Your task to perform on an android device: Open Youtube and go to the subscriptions tab Image 0: 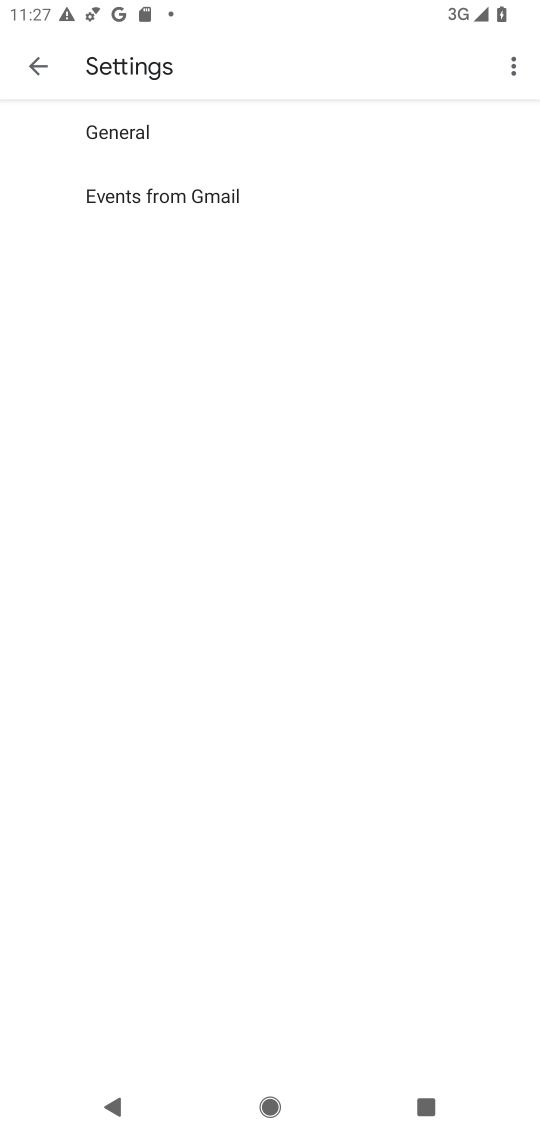
Step 0: press home button
Your task to perform on an android device: Open Youtube and go to the subscriptions tab Image 1: 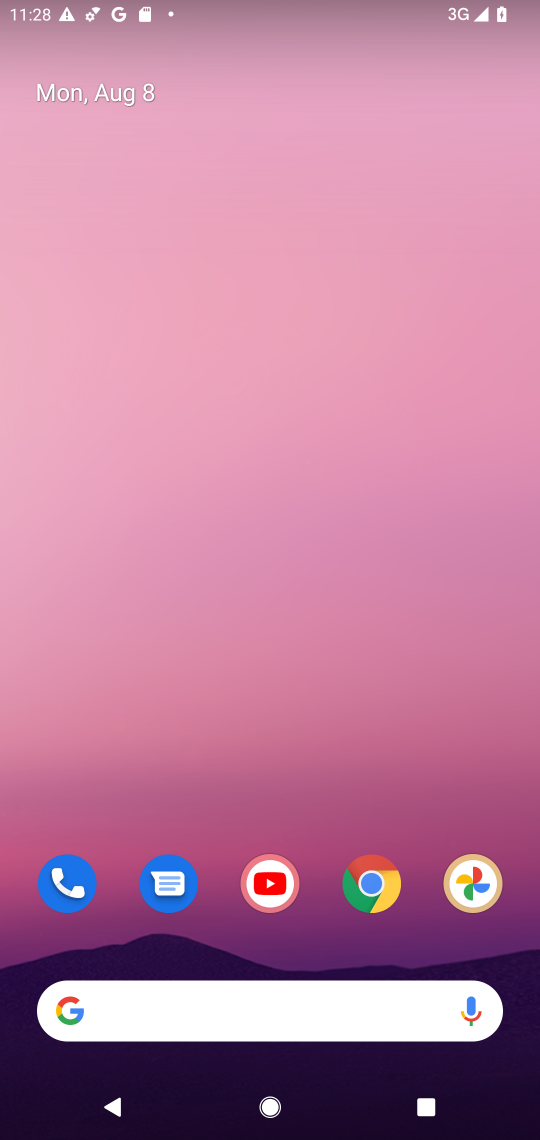
Step 1: drag from (323, 941) to (312, 24)
Your task to perform on an android device: Open Youtube and go to the subscriptions tab Image 2: 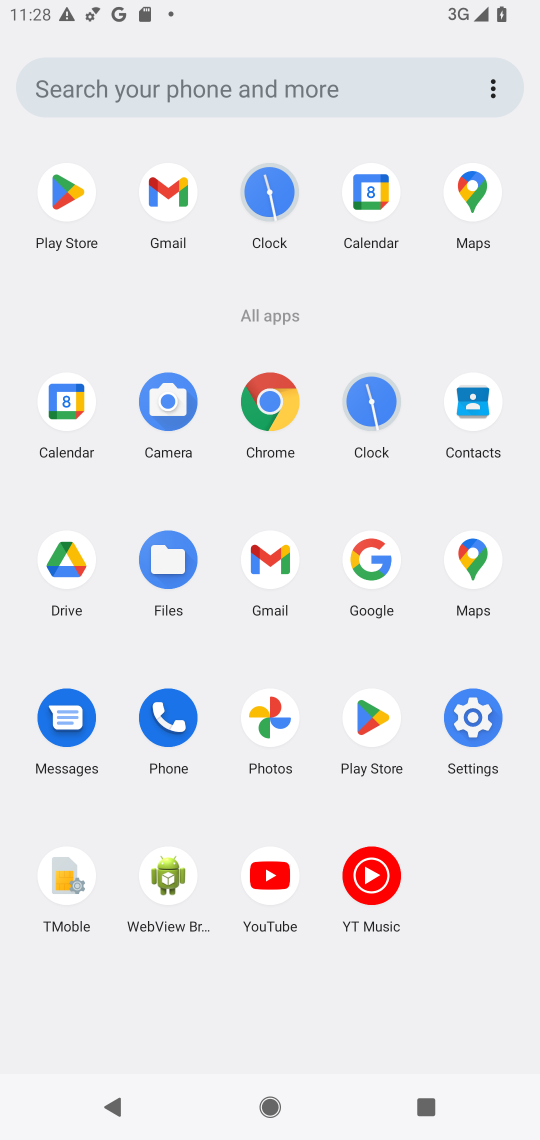
Step 2: click (263, 864)
Your task to perform on an android device: Open Youtube and go to the subscriptions tab Image 3: 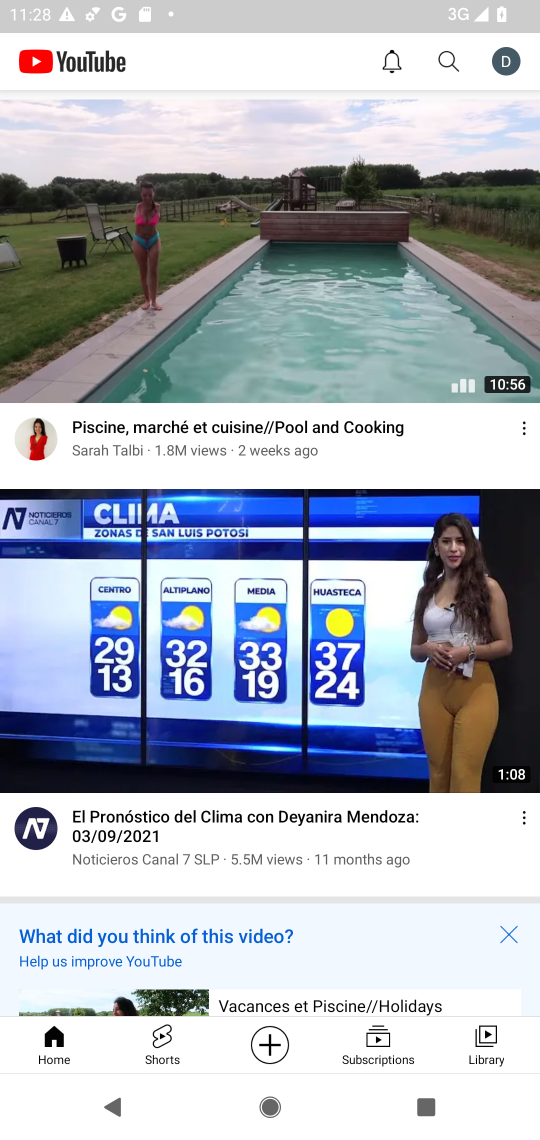
Step 3: click (377, 1027)
Your task to perform on an android device: Open Youtube and go to the subscriptions tab Image 4: 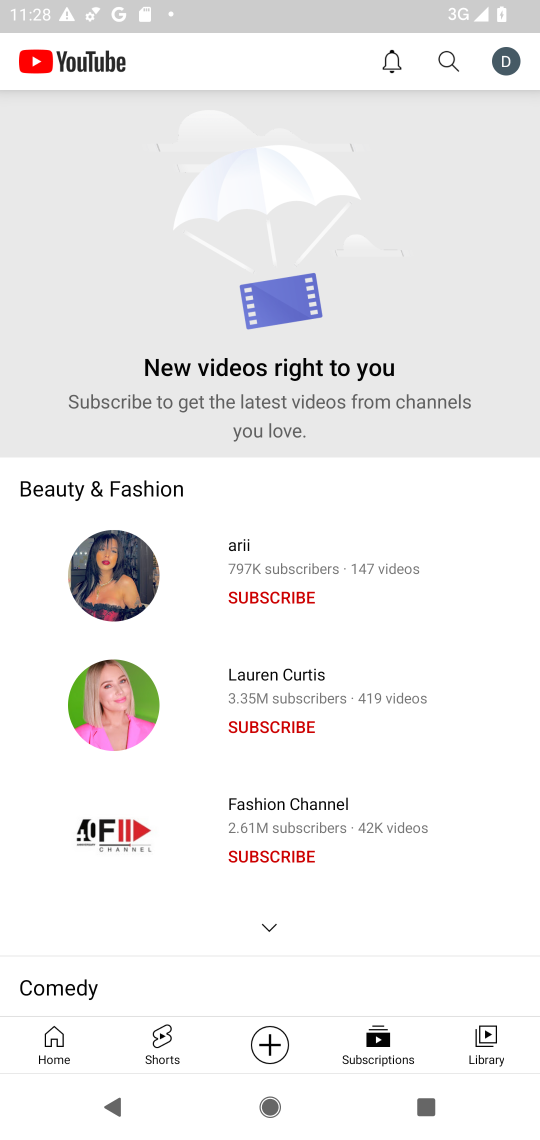
Step 4: task complete